Your task to perform on an android device: Open Google Maps and go to "Timeline" Image 0: 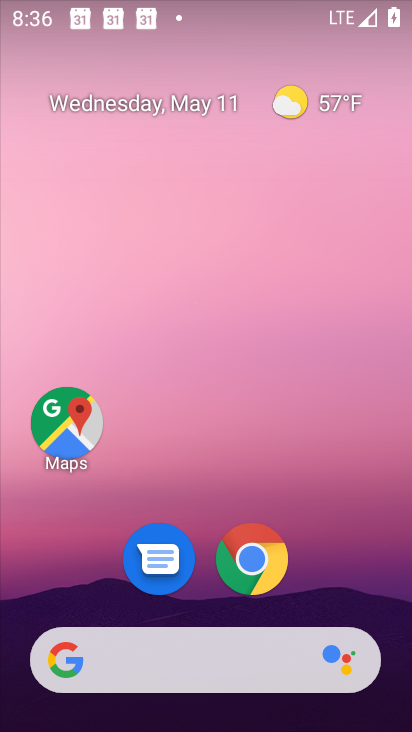
Step 0: press home button
Your task to perform on an android device: Open Google Maps and go to "Timeline" Image 1: 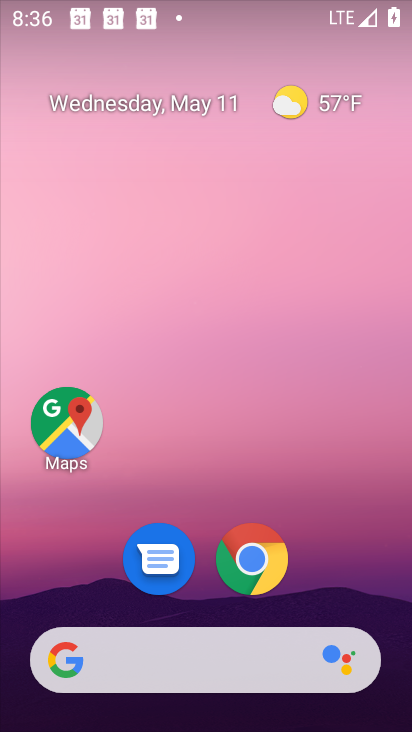
Step 1: click (11, 425)
Your task to perform on an android device: Open Google Maps and go to "Timeline" Image 2: 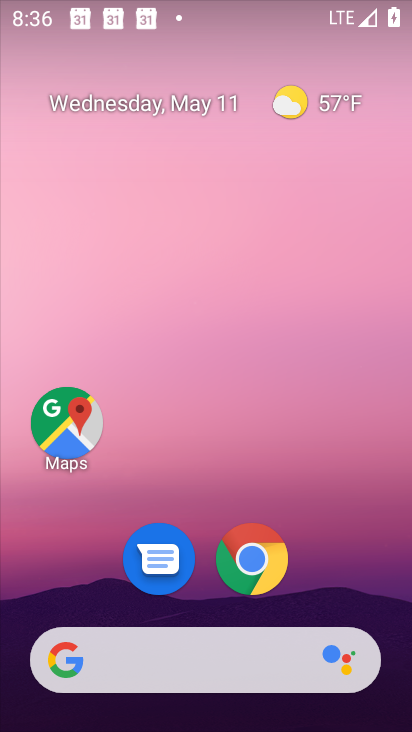
Step 2: click (54, 440)
Your task to perform on an android device: Open Google Maps and go to "Timeline" Image 3: 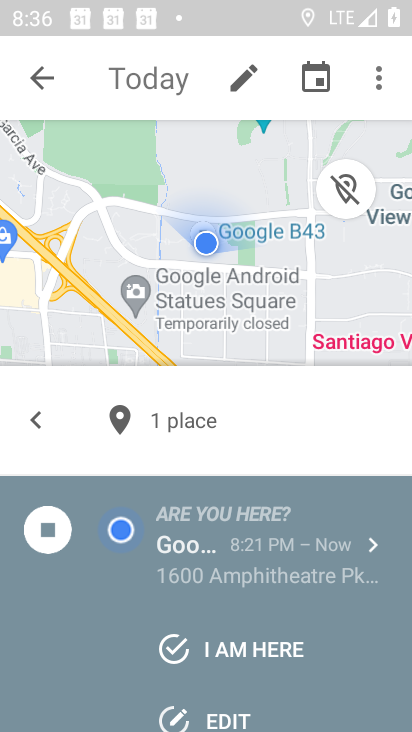
Step 3: task complete